Your task to perform on an android device: turn on data saver in the chrome app Image 0: 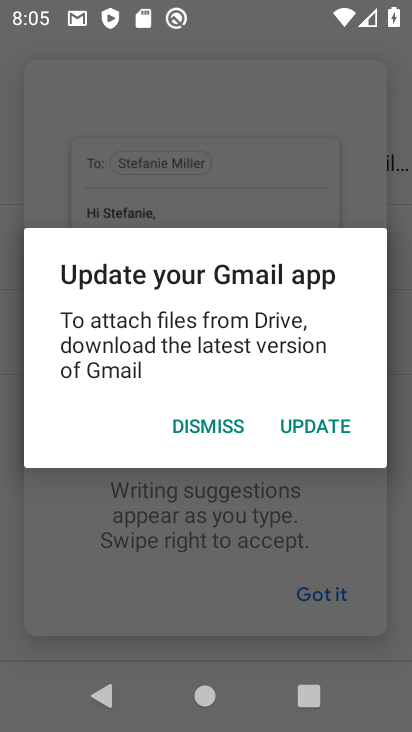
Step 0: press home button
Your task to perform on an android device: turn on data saver in the chrome app Image 1: 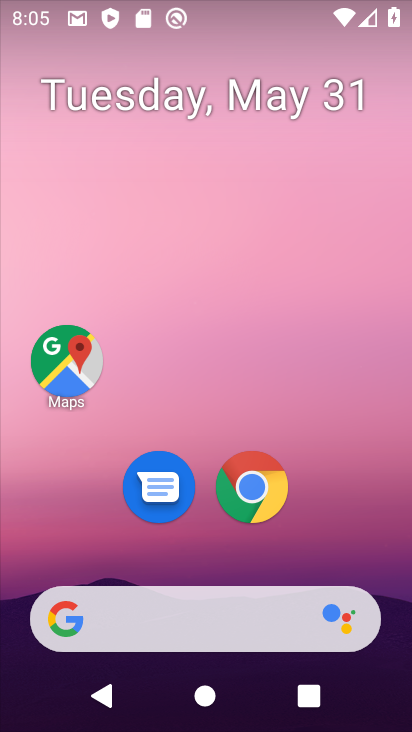
Step 1: click (275, 491)
Your task to perform on an android device: turn on data saver in the chrome app Image 2: 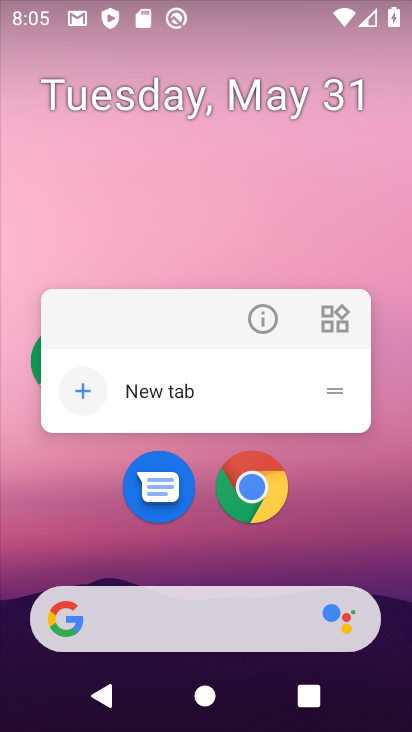
Step 2: click (147, 396)
Your task to perform on an android device: turn on data saver in the chrome app Image 3: 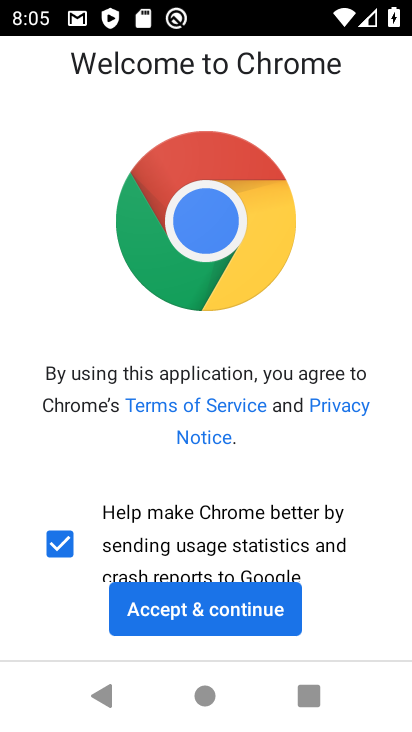
Step 3: click (268, 608)
Your task to perform on an android device: turn on data saver in the chrome app Image 4: 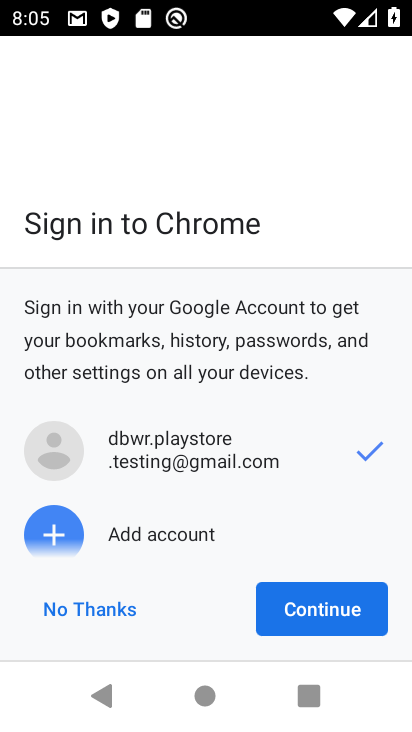
Step 4: click (268, 608)
Your task to perform on an android device: turn on data saver in the chrome app Image 5: 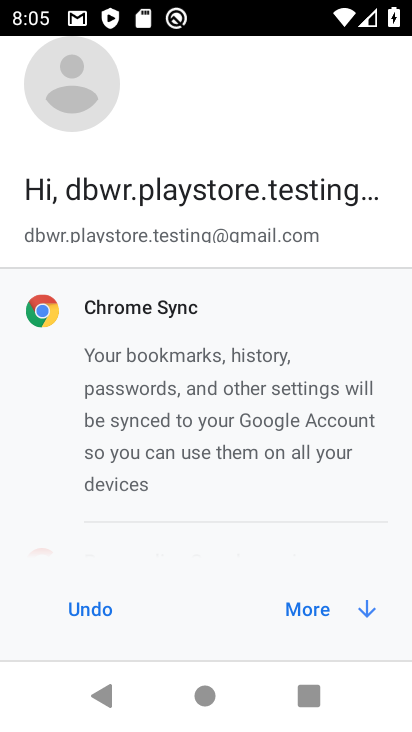
Step 5: click (292, 611)
Your task to perform on an android device: turn on data saver in the chrome app Image 6: 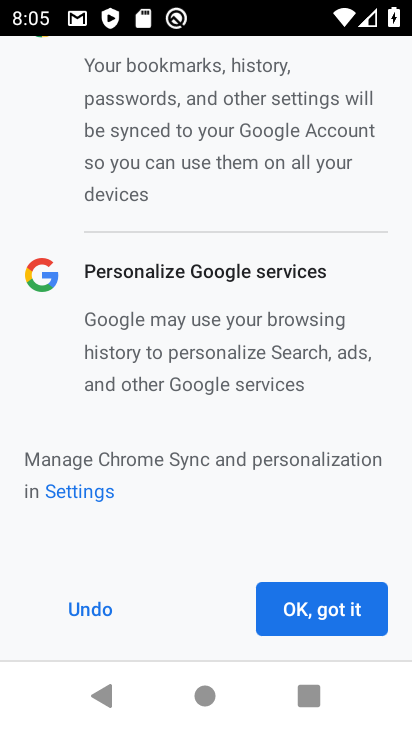
Step 6: click (292, 611)
Your task to perform on an android device: turn on data saver in the chrome app Image 7: 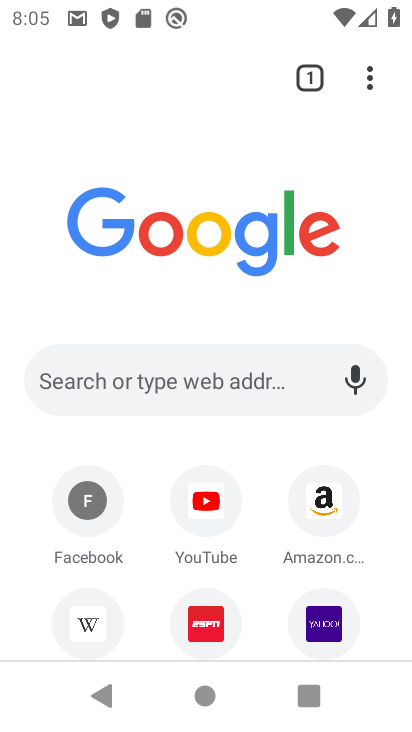
Step 7: click (182, 398)
Your task to perform on an android device: turn on data saver in the chrome app Image 8: 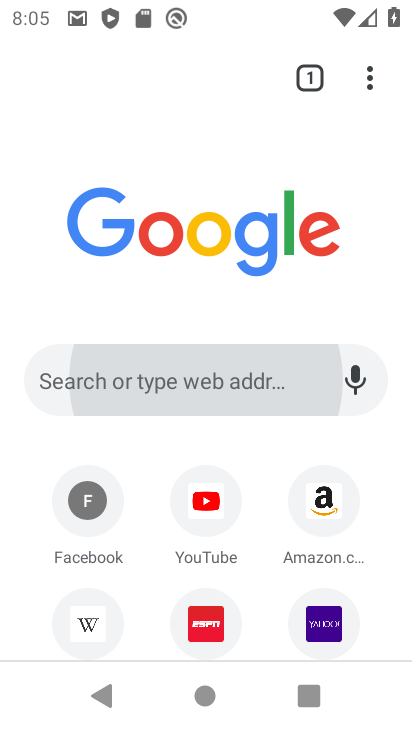
Step 8: click (181, 701)
Your task to perform on an android device: turn on data saver in the chrome app Image 9: 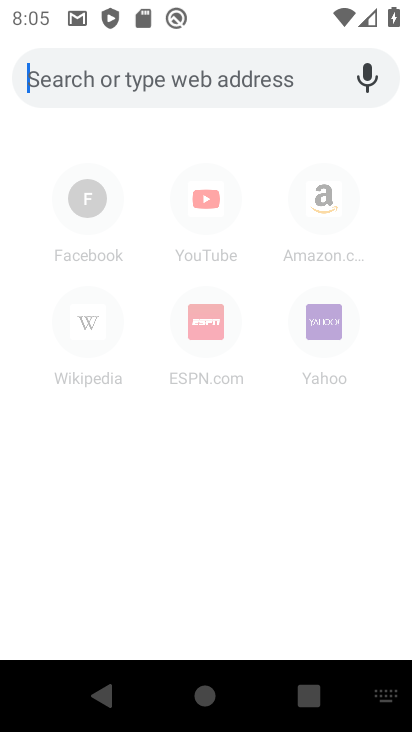
Step 9: press back button
Your task to perform on an android device: turn on data saver in the chrome app Image 10: 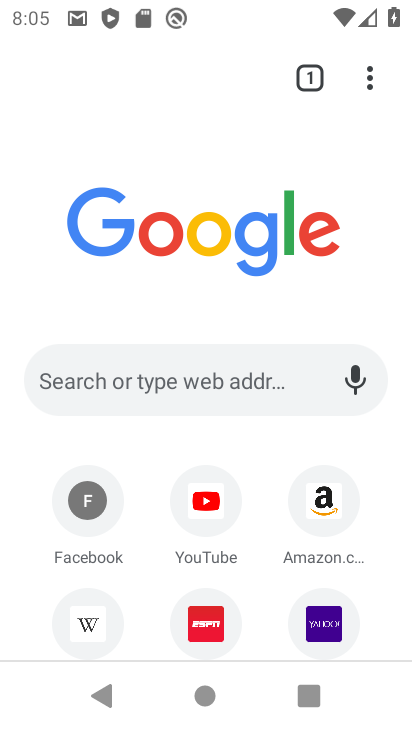
Step 10: click (361, 66)
Your task to perform on an android device: turn on data saver in the chrome app Image 11: 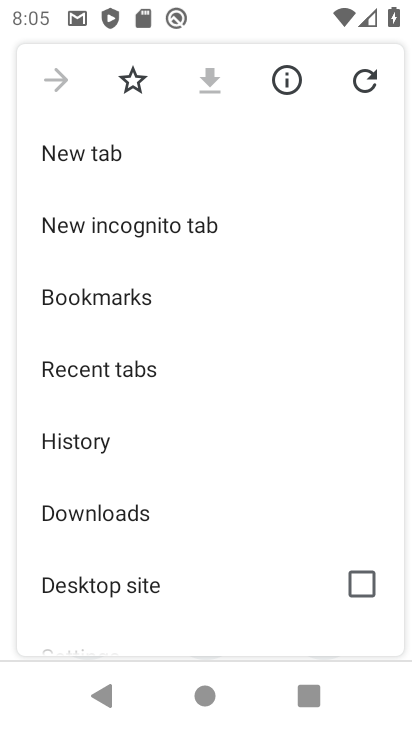
Step 11: drag from (144, 595) to (130, 93)
Your task to perform on an android device: turn on data saver in the chrome app Image 12: 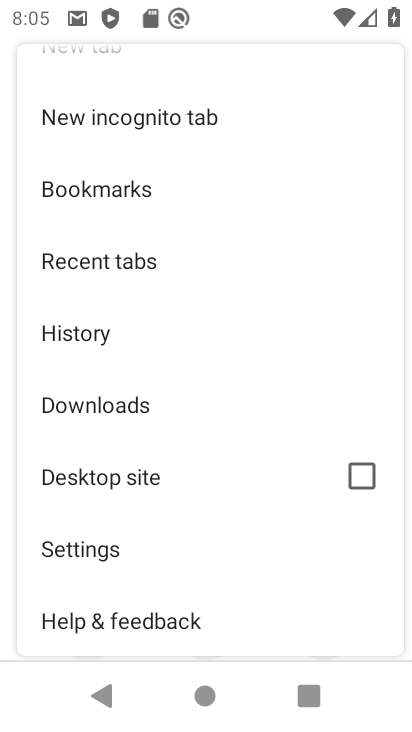
Step 12: click (110, 571)
Your task to perform on an android device: turn on data saver in the chrome app Image 13: 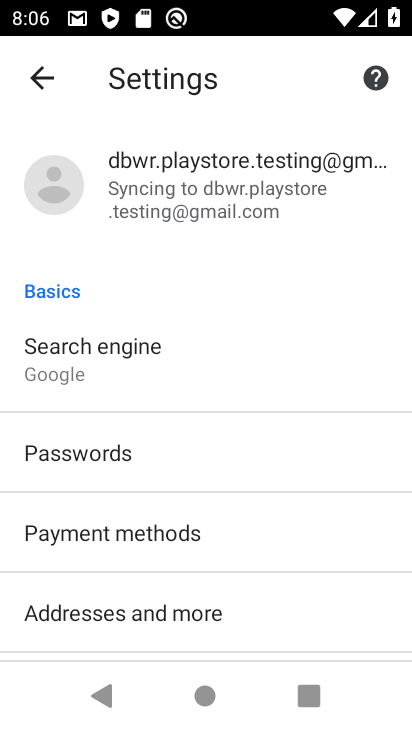
Step 13: drag from (196, 632) to (187, 444)
Your task to perform on an android device: turn on data saver in the chrome app Image 14: 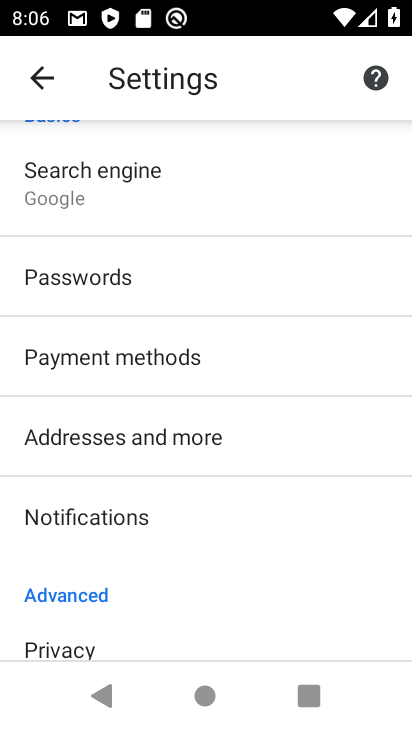
Step 14: drag from (192, 618) to (182, 390)
Your task to perform on an android device: turn on data saver in the chrome app Image 15: 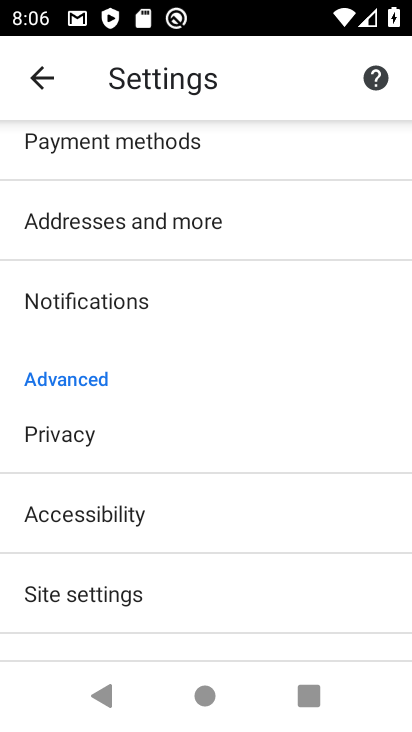
Step 15: drag from (165, 641) to (161, 383)
Your task to perform on an android device: turn on data saver in the chrome app Image 16: 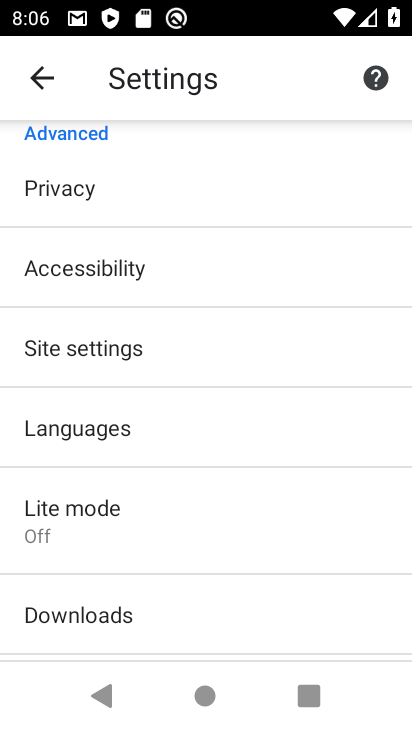
Step 16: click (229, 557)
Your task to perform on an android device: turn on data saver in the chrome app Image 17: 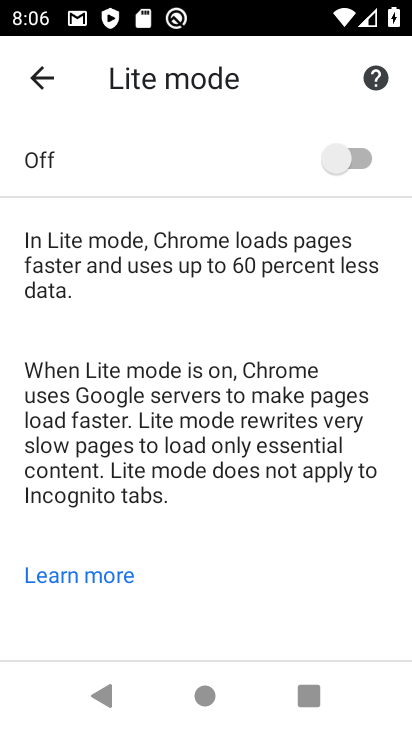
Step 17: click (354, 166)
Your task to perform on an android device: turn on data saver in the chrome app Image 18: 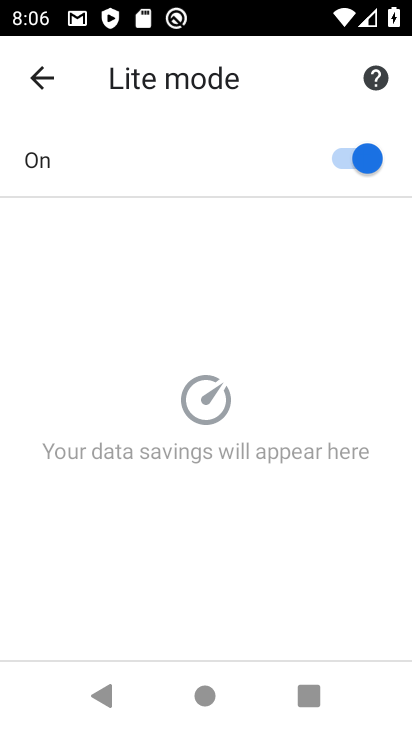
Step 18: task complete